Your task to perform on an android device: toggle location history Image 0: 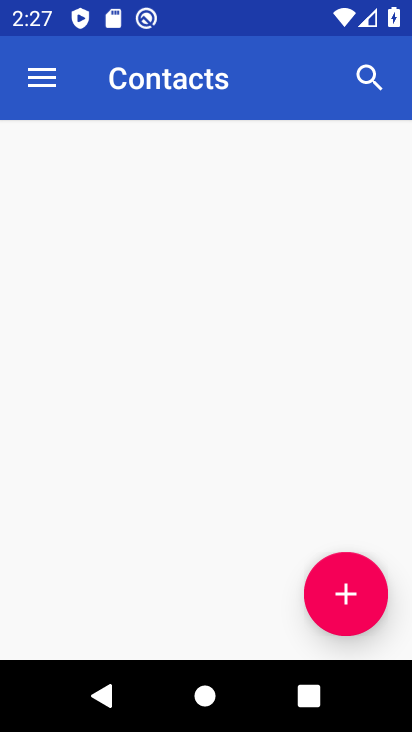
Step 0: press home button
Your task to perform on an android device: toggle location history Image 1: 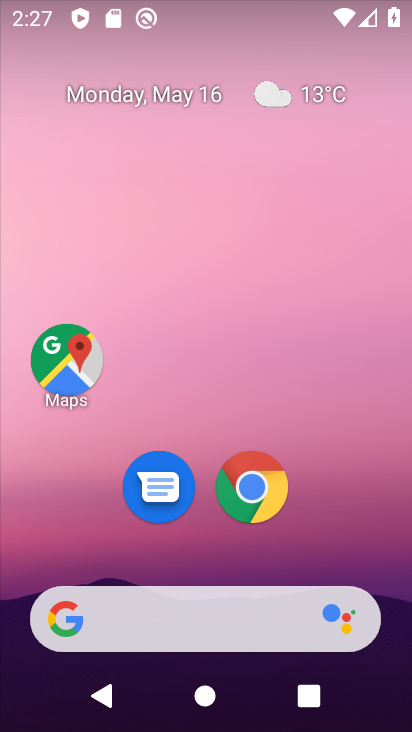
Step 1: drag from (283, 550) to (216, 126)
Your task to perform on an android device: toggle location history Image 2: 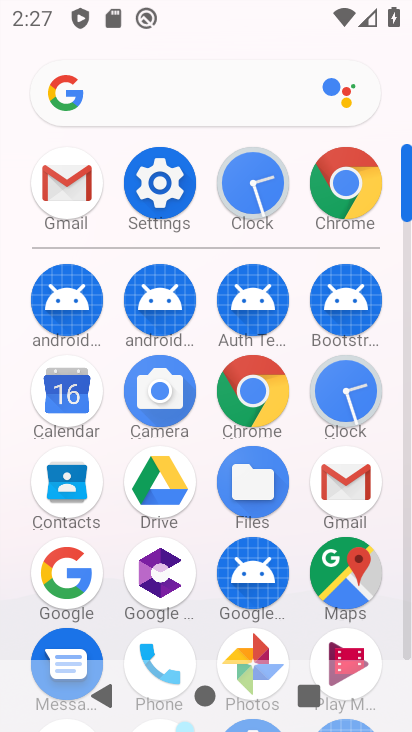
Step 2: click (150, 168)
Your task to perform on an android device: toggle location history Image 3: 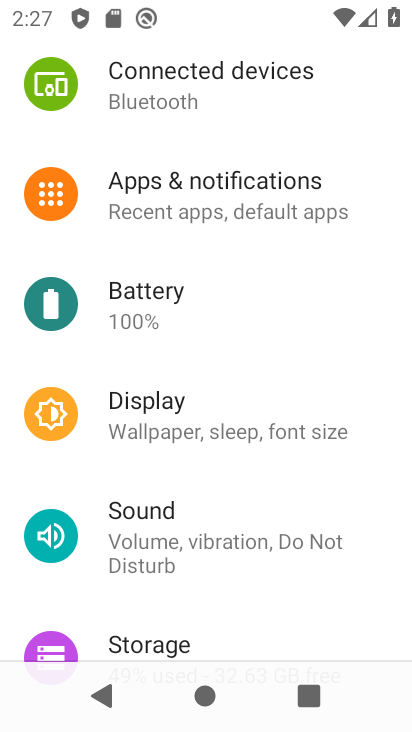
Step 3: drag from (139, 483) to (148, 225)
Your task to perform on an android device: toggle location history Image 4: 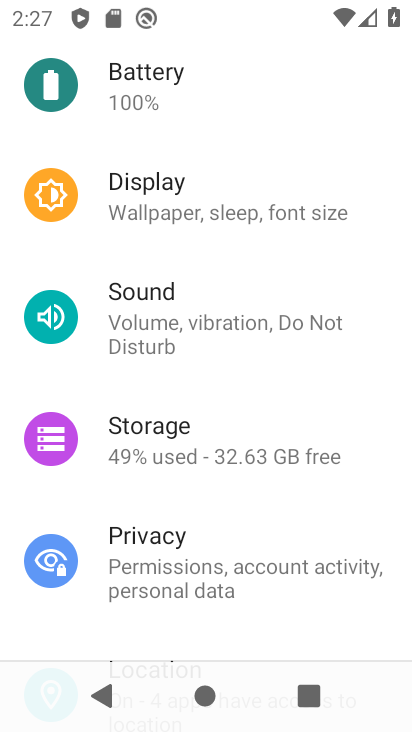
Step 4: drag from (192, 545) to (189, 231)
Your task to perform on an android device: toggle location history Image 5: 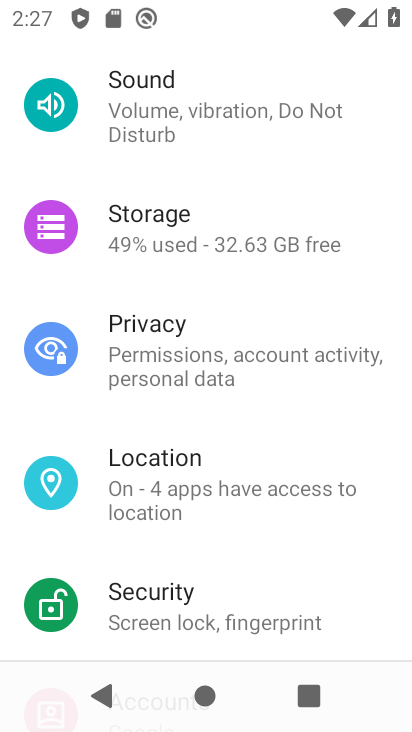
Step 5: click (144, 475)
Your task to perform on an android device: toggle location history Image 6: 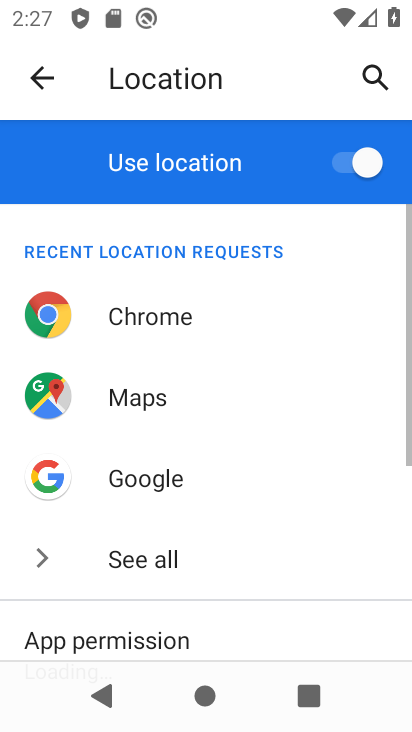
Step 6: drag from (219, 526) to (173, 129)
Your task to perform on an android device: toggle location history Image 7: 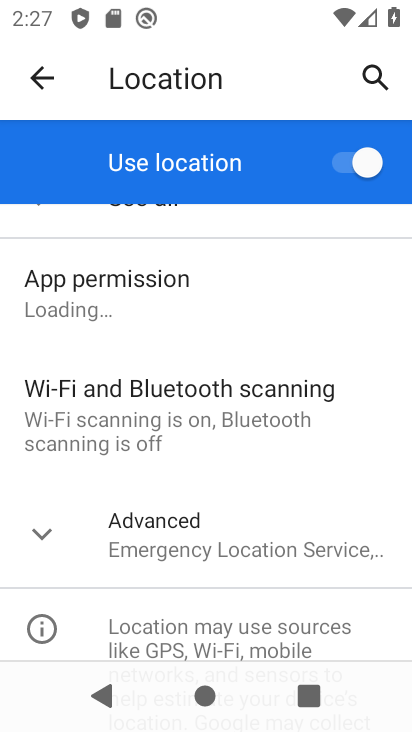
Step 7: drag from (203, 620) to (178, 358)
Your task to perform on an android device: toggle location history Image 8: 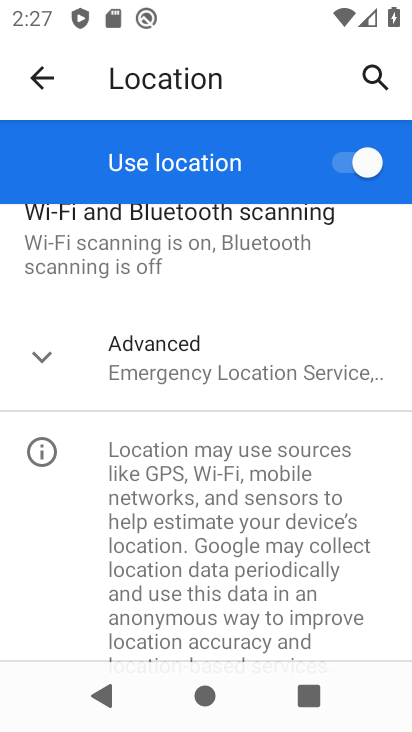
Step 8: click (160, 361)
Your task to perform on an android device: toggle location history Image 9: 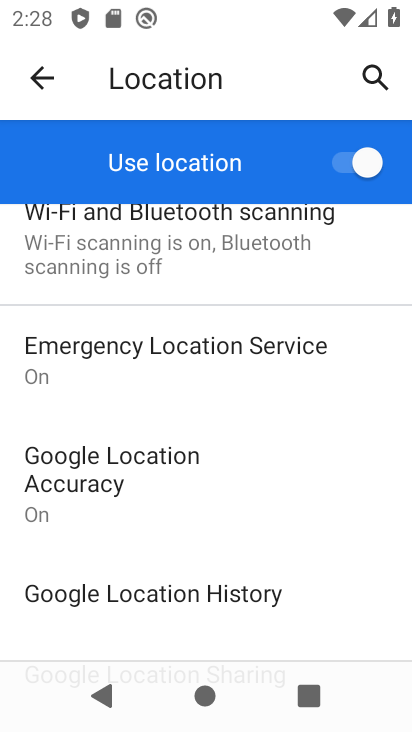
Step 9: drag from (202, 601) to (179, 419)
Your task to perform on an android device: toggle location history Image 10: 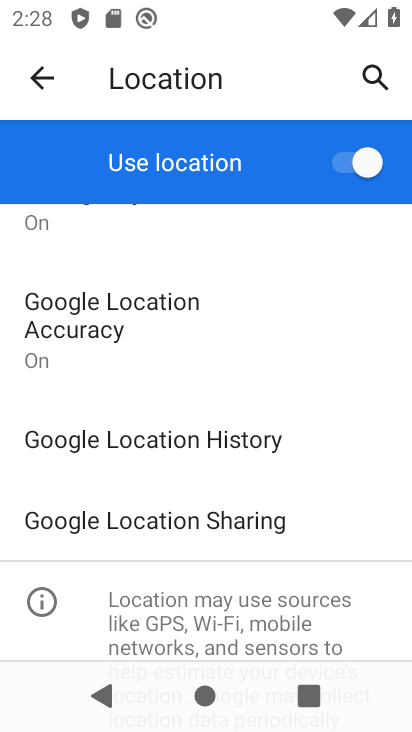
Step 10: click (164, 454)
Your task to perform on an android device: toggle location history Image 11: 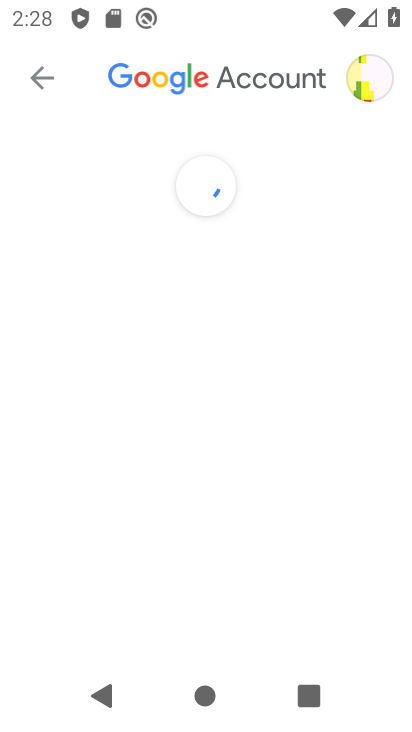
Step 11: drag from (189, 583) to (248, 164)
Your task to perform on an android device: toggle location history Image 12: 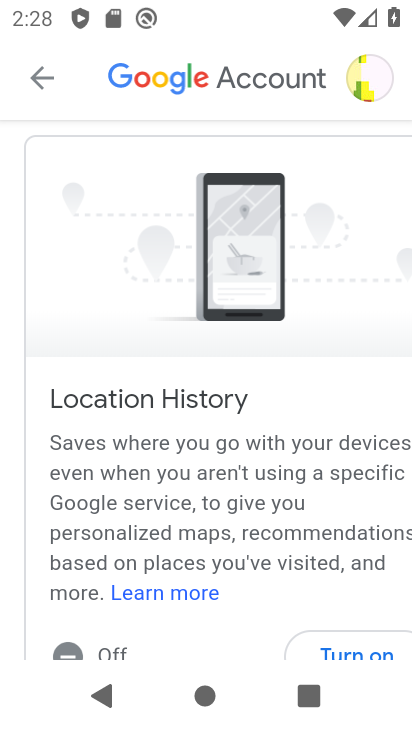
Step 12: drag from (258, 565) to (267, 299)
Your task to perform on an android device: toggle location history Image 13: 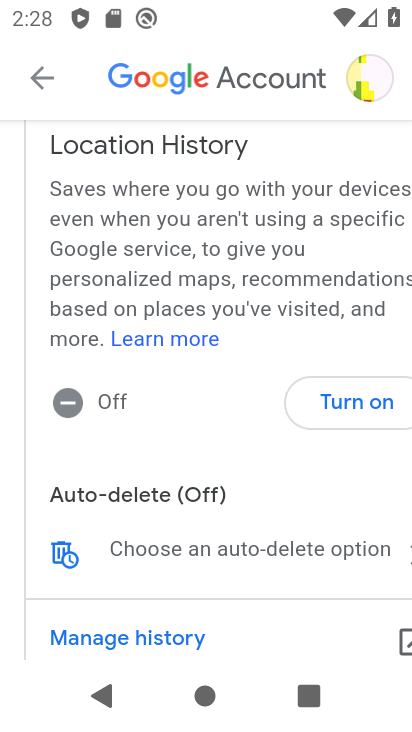
Step 13: click (359, 394)
Your task to perform on an android device: toggle location history Image 14: 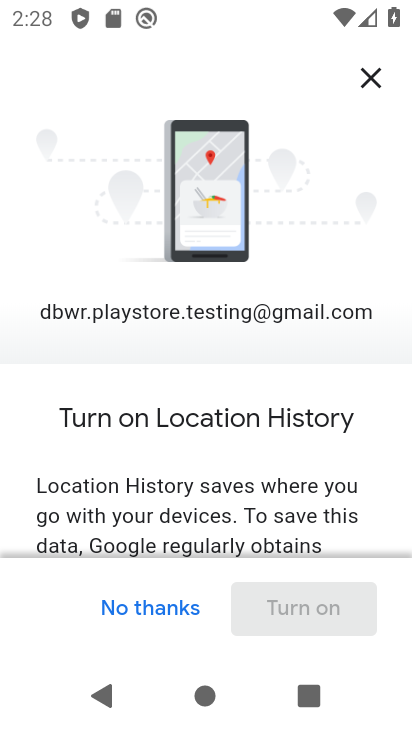
Step 14: drag from (255, 506) to (277, 14)
Your task to perform on an android device: toggle location history Image 15: 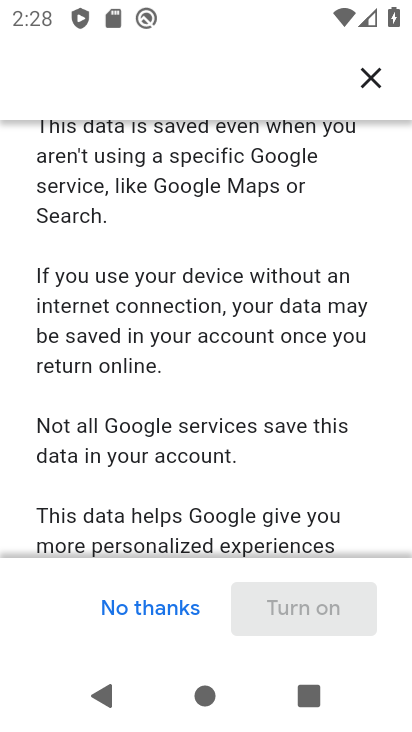
Step 15: drag from (267, 527) to (273, 261)
Your task to perform on an android device: toggle location history Image 16: 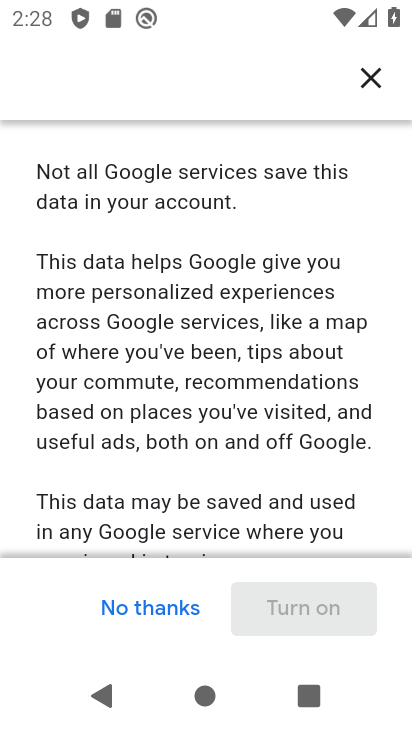
Step 16: drag from (265, 532) to (265, 225)
Your task to perform on an android device: toggle location history Image 17: 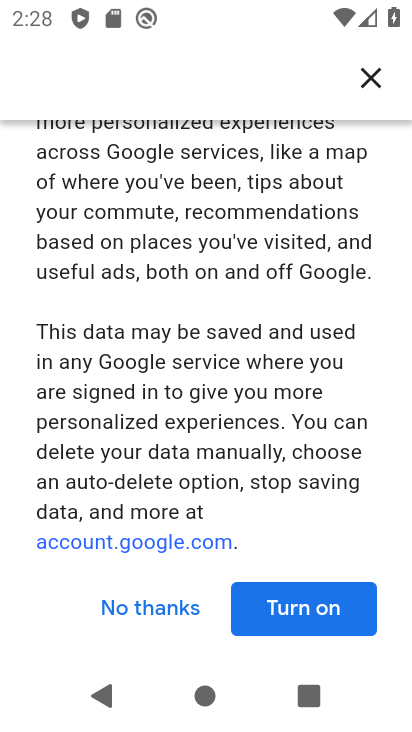
Step 17: click (256, 610)
Your task to perform on an android device: toggle location history Image 18: 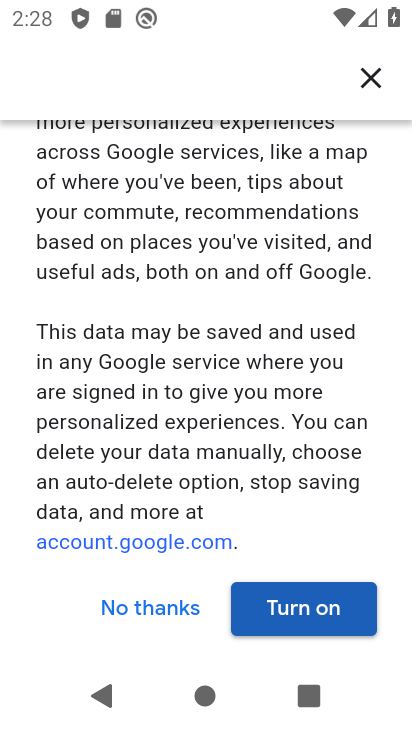
Step 18: click (318, 604)
Your task to perform on an android device: toggle location history Image 19: 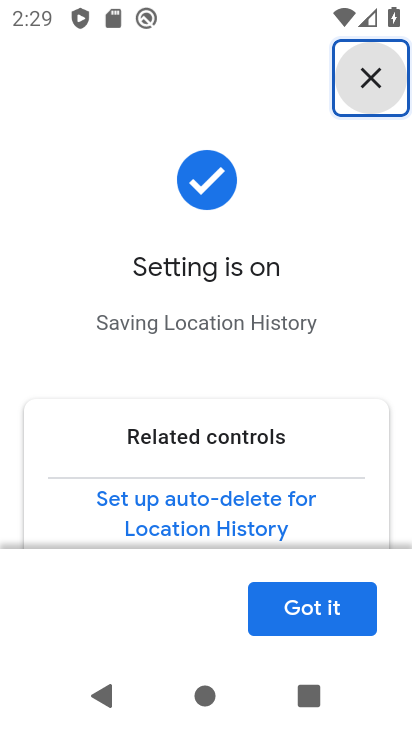
Step 19: click (318, 609)
Your task to perform on an android device: toggle location history Image 20: 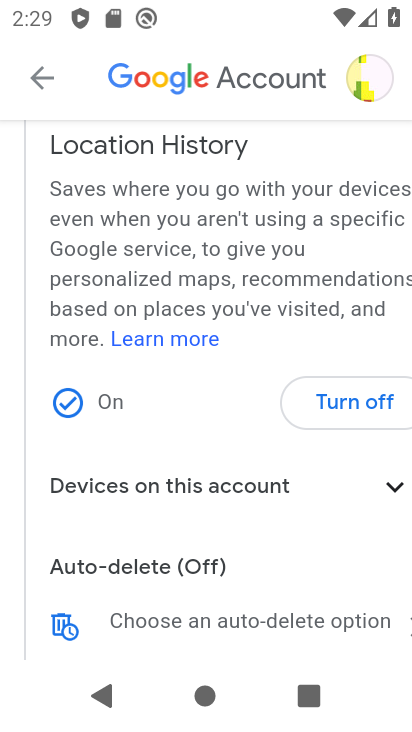
Step 20: task complete